Your task to perform on an android device: Check the news Image 0: 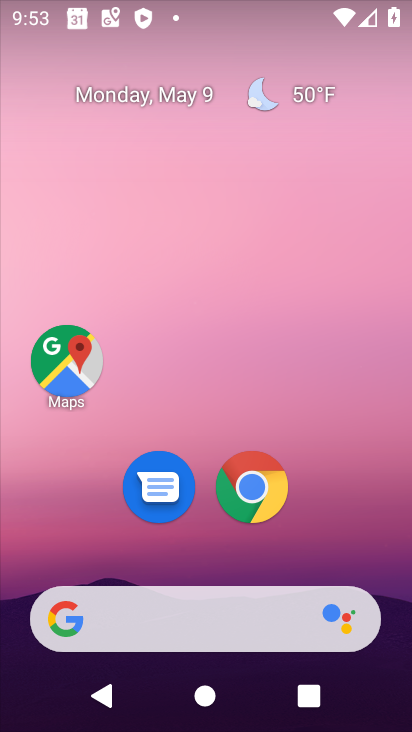
Step 0: press home button
Your task to perform on an android device: Check the news Image 1: 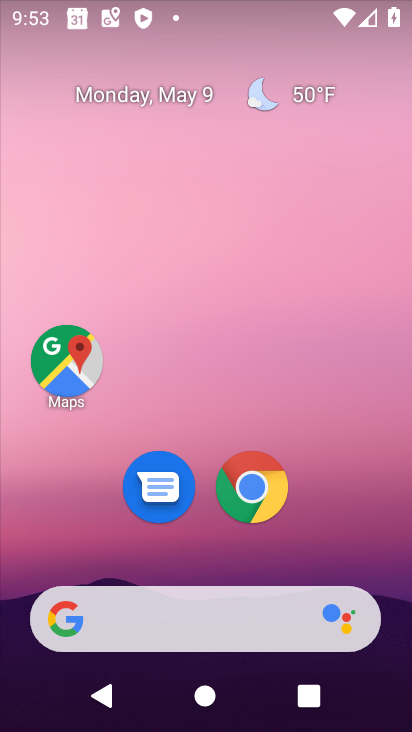
Step 1: click (179, 632)
Your task to perform on an android device: Check the news Image 2: 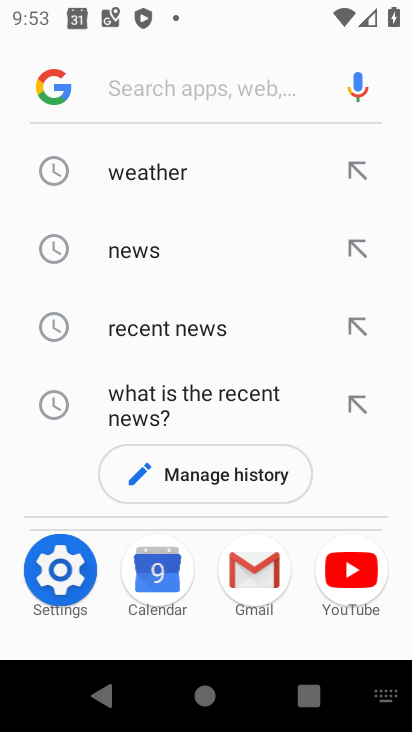
Step 2: click (145, 245)
Your task to perform on an android device: Check the news Image 3: 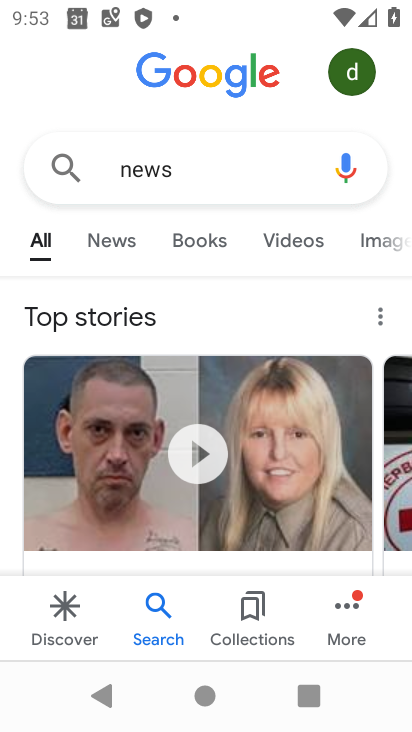
Step 3: task complete